Your task to perform on an android device: Go to network settings Image 0: 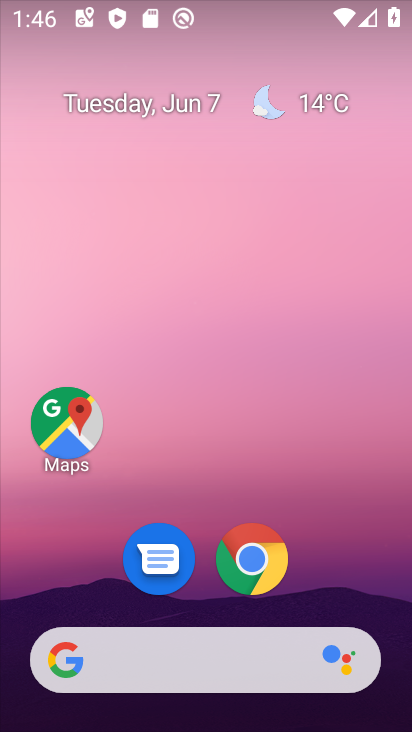
Step 0: drag from (341, 555) to (207, 14)
Your task to perform on an android device: Go to network settings Image 1: 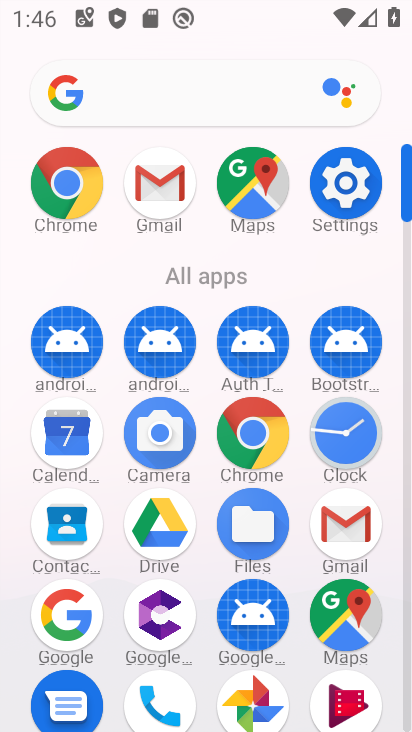
Step 1: click (347, 178)
Your task to perform on an android device: Go to network settings Image 2: 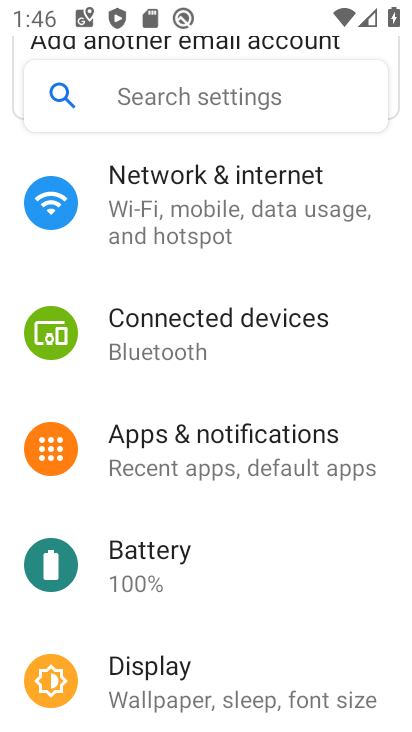
Step 2: drag from (343, 180) to (307, 524)
Your task to perform on an android device: Go to network settings Image 3: 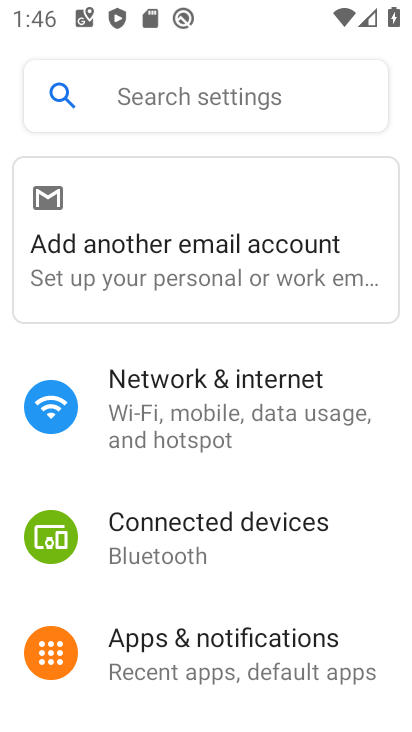
Step 3: drag from (348, 568) to (343, 395)
Your task to perform on an android device: Go to network settings Image 4: 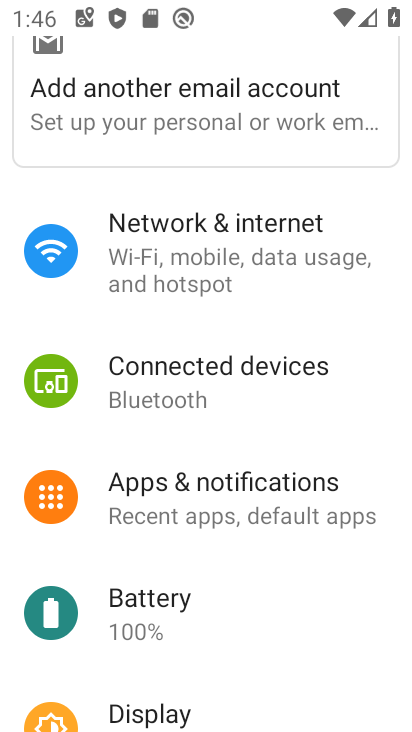
Step 4: click (243, 254)
Your task to perform on an android device: Go to network settings Image 5: 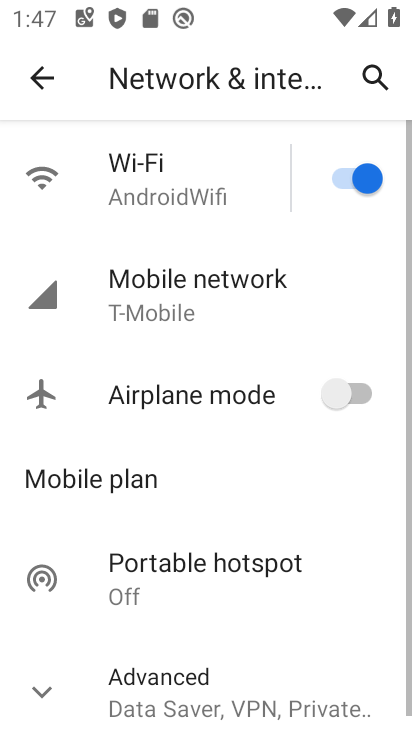
Step 5: click (41, 682)
Your task to perform on an android device: Go to network settings Image 6: 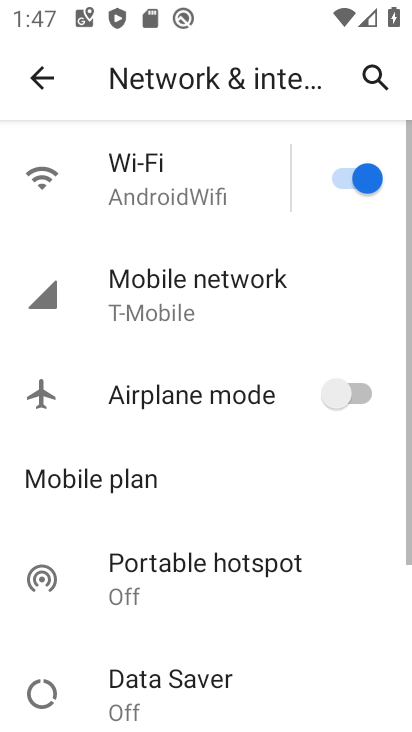
Step 6: task complete